Your task to perform on an android device: change your default location settings in chrome Image 0: 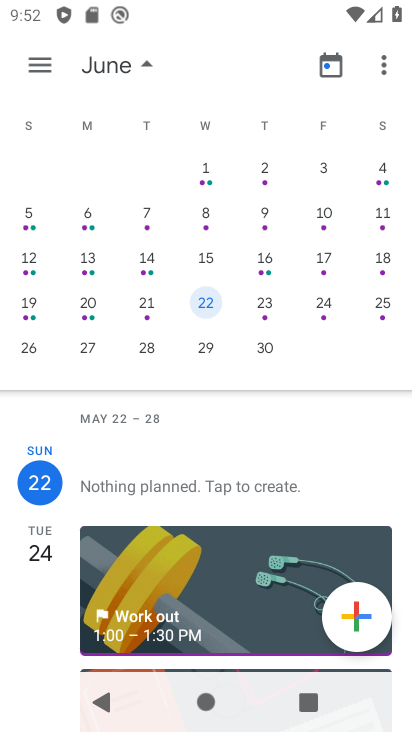
Step 0: press home button
Your task to perform on an android device: change your default location settings in chrome Image 1: 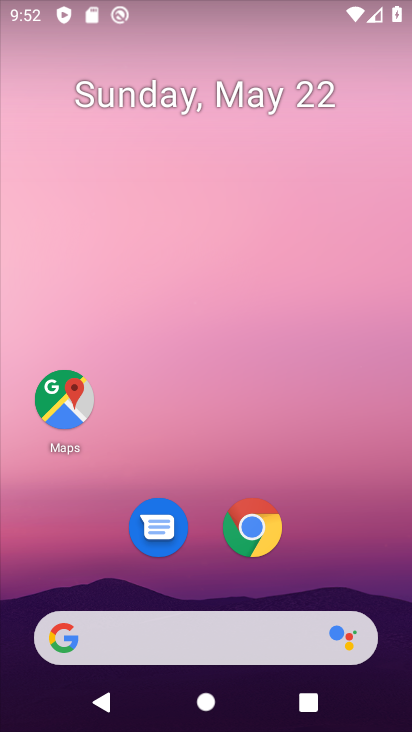
Step 1: click (259, 536)
Your task to perform on an android device: change your default location settings in chrome Image 2: 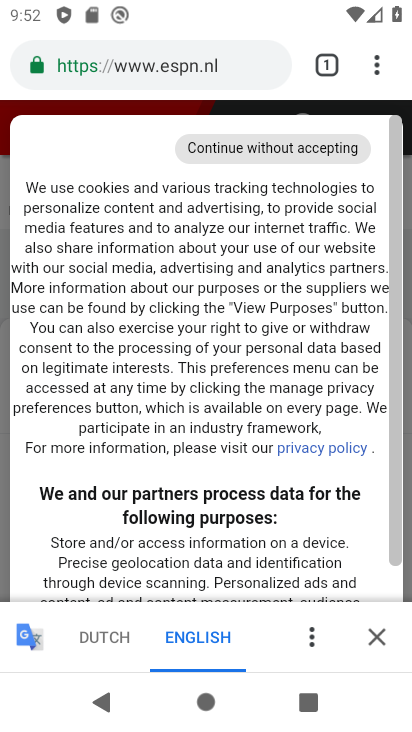
Step 2: click (377, 74)
Your task to perform on an android device: change your default location settings in chrome Image 3: 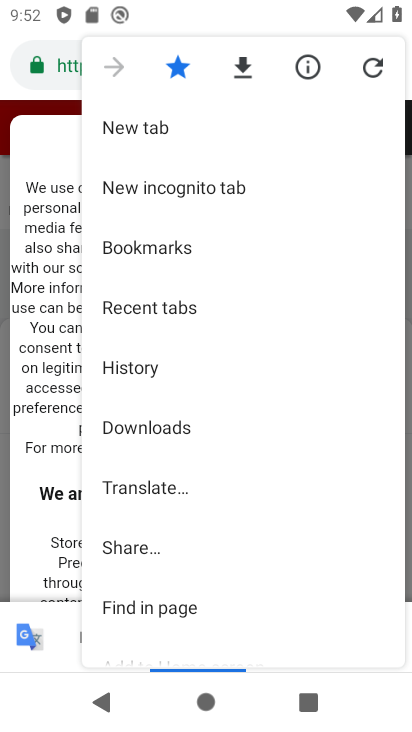
Step 3: drag from (168, 580) to (235, 385)
Your task to perform on an android device: change your default location settings in chrome Image 4: 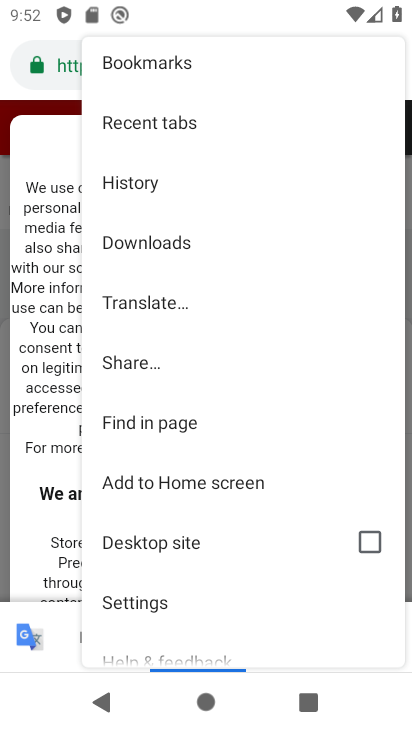
Step 4: click (196, 607)
Your task to perform on an android device: change your default location settings in chrome Image 5: 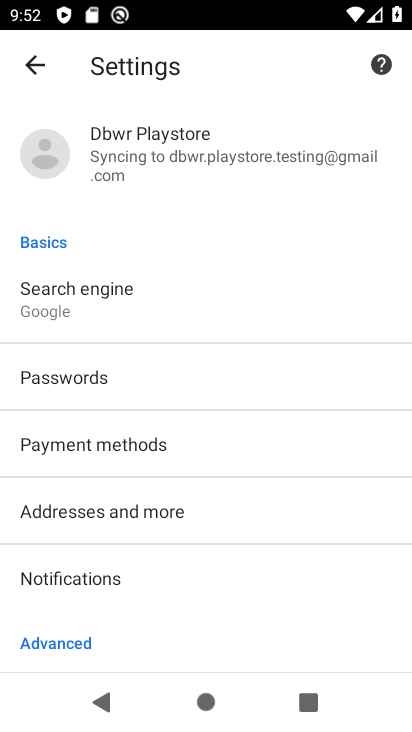
Step 5: drag from (133, 565) to (171, 304)
Your task to perform on an android device: change your default location settings in chrome Image 6: 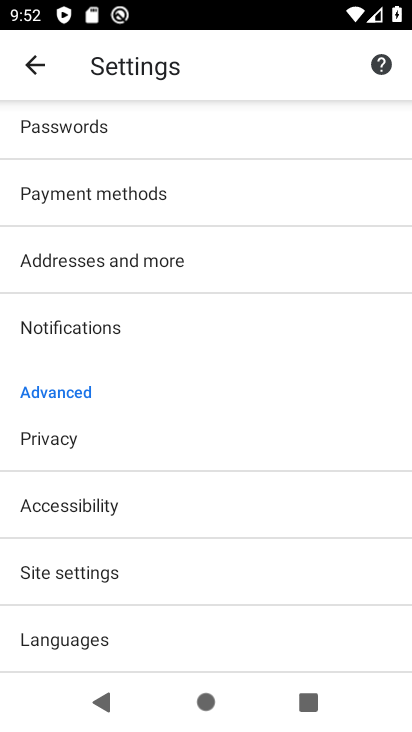
Step 6: click (207, 262)
Your task to perform on an android device: change your default location settings in chrome Image 7: 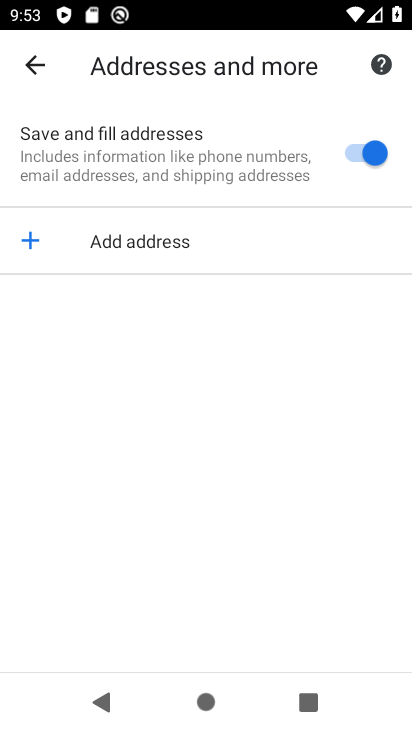
Step 7: task complete